Your task to perform on an android device: set default search engine in the chrome app Image 0: 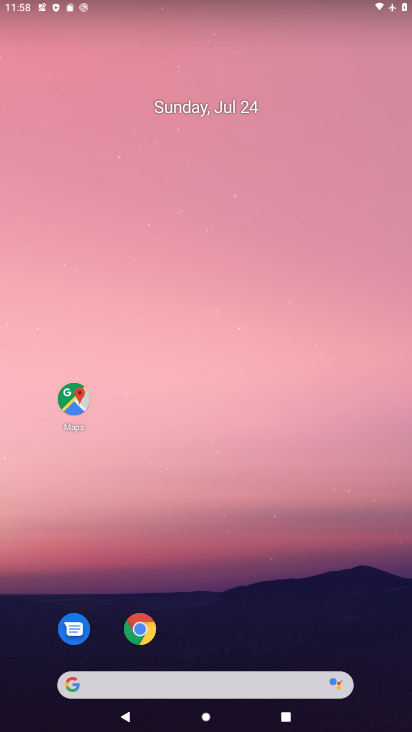
Step 0: click (143, 633)
Your task to perform on an android device: set default search engine in the chrome app Image 1: 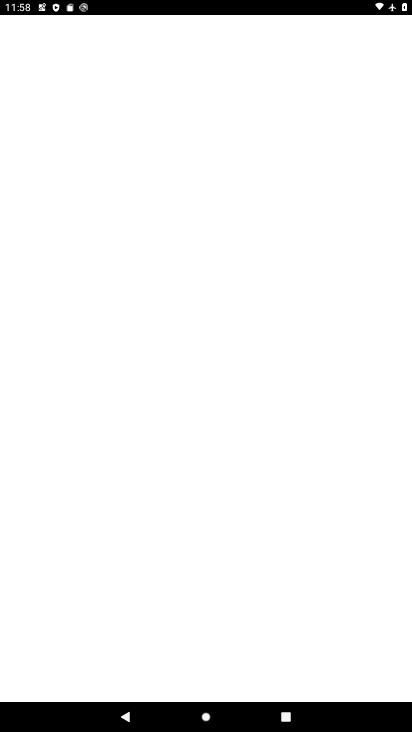
Step 1: task complete